Your task to perform on an android device: turn off picture-in-picture Image 0: 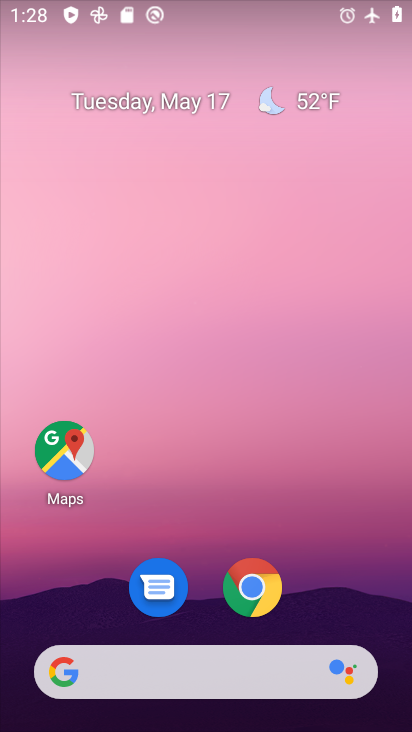
Step 0: drag from (342, 605) to (274, 0)
Your task to perform on an android device: turn off picture-in-picture Image 1: 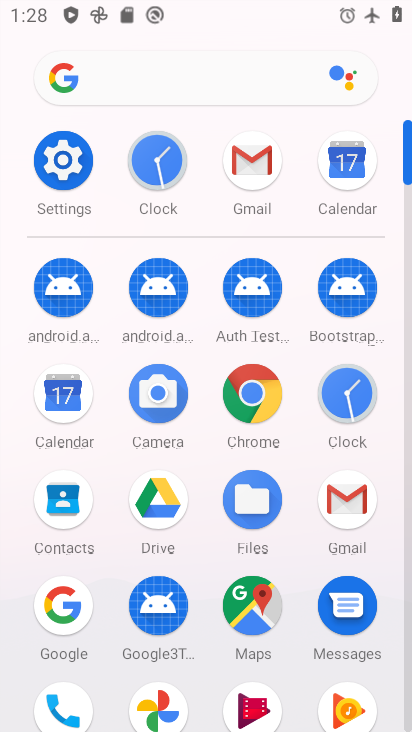
Step 1: click (77, 182)
Your task to perform on an android device: turn off picture-in-picture Image 2: 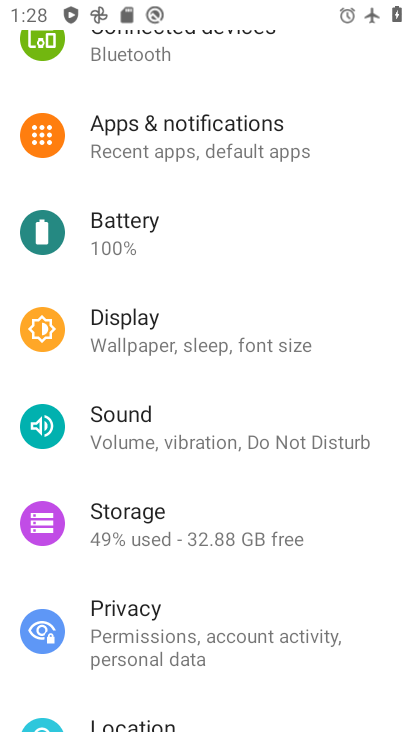
Step 2: drag from (199, 617) to (201, 536)
Your task to perform on an android device: turn off picture-in-picture Image 3: 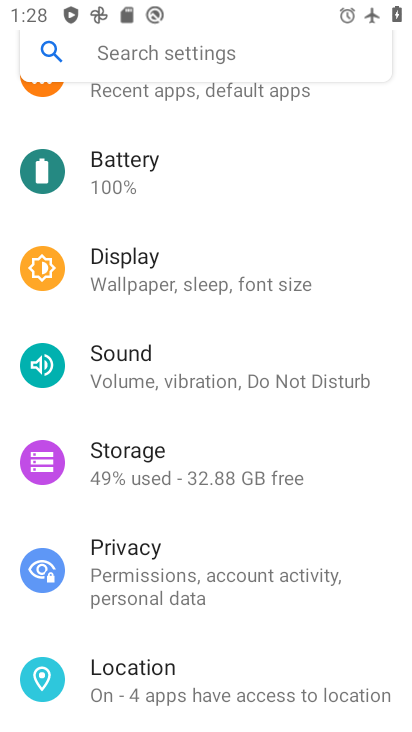
Step 3: click (245, 124)
Your task to perform on an android device: turn off picture-in-picture Image 4: 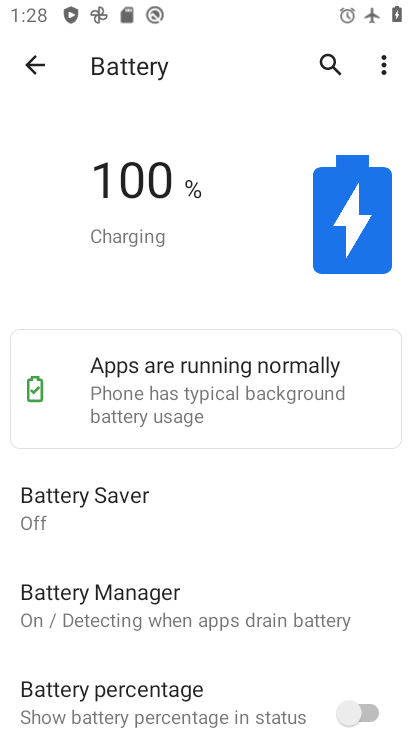
Step 4: click (30, 60)
Your task to perform on an android device: turn off picture-in-picture Image 5: 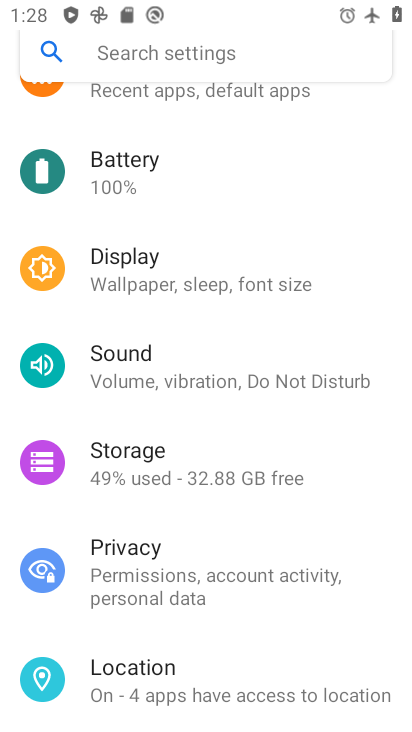
Step 5: click (123, 97)
Your task to perform on an android device: turn off picture-in-picture Image 6: 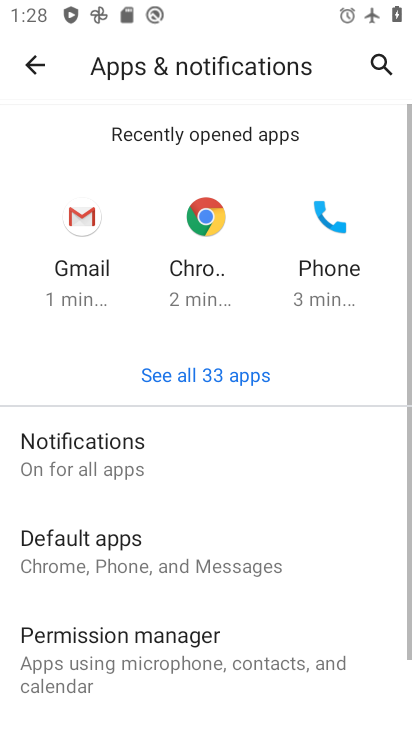
Step 6: drag from (249, 542) to (251, 243)
Your task to perform on an android device: turn off picture-in-picture Image 7: 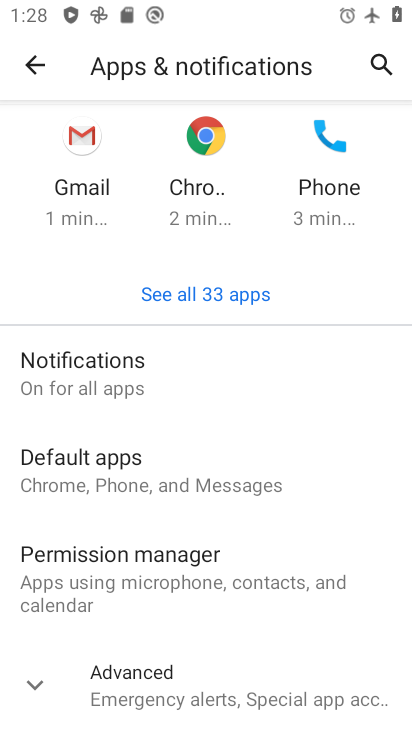
Step 7: click (172, 671)
Your task to perform on an android device: turn off picture-in-picture Image 8: 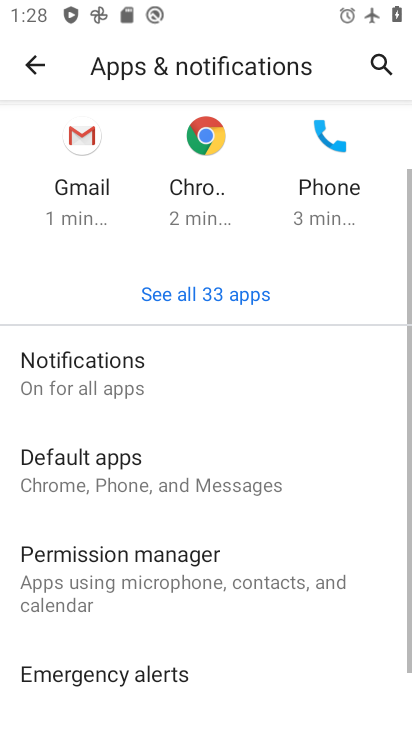
Step 8: drag from (260, 618) to (287, 244)
Your task to perform on an android device: turn off picture-in-picture Image 9: 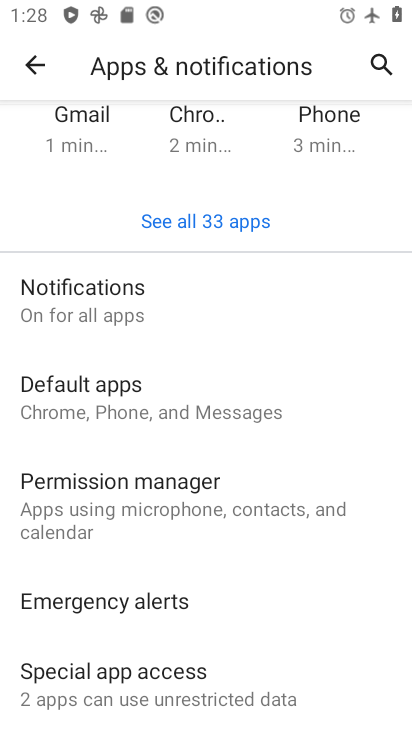
Step 9: click (235, 670)
Your task to perform on an android device: turn off picture-in-picture Image 10: 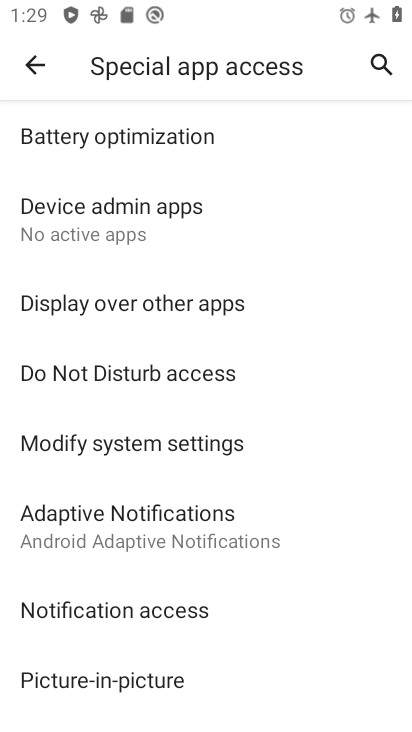
Step 10: click (212, 663)
Your task to perform on an android device: turn off picture-in-picture Image 11: 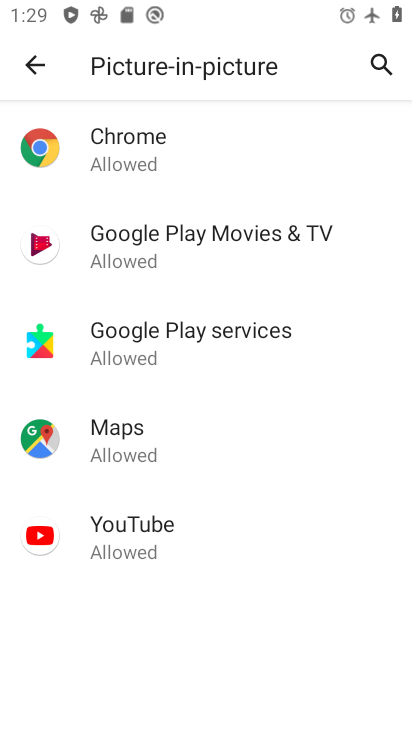
Step 11: click (286, 159)
Your task to perform on an android device: turn off picture-in-picture Image 12: 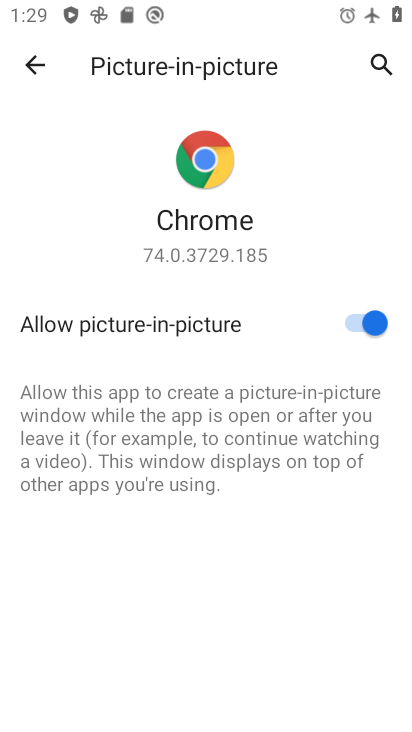
Step 12: click (361, 318)
Your task to perform on an android device: turn off picture-in-picture Image 13: 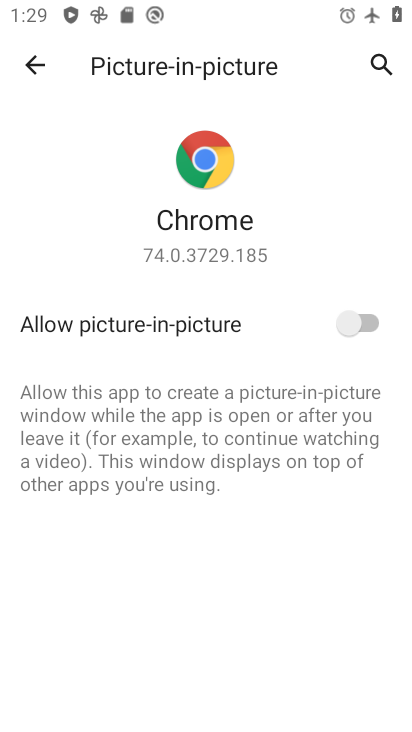
Step 13: task complete